Your task to perform on an android device: turn off smart reply in the gmail app Image 0: 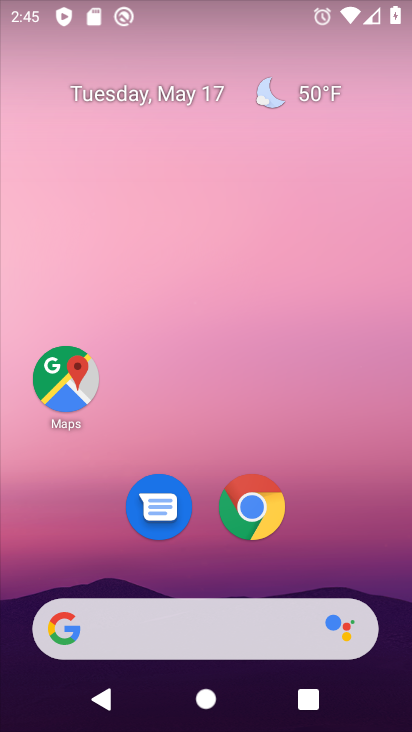
Step 0: drag from (334, 545) to (183, 8)
Your task to perform on an android device: turn off smart reply in the gmail app Image 1: 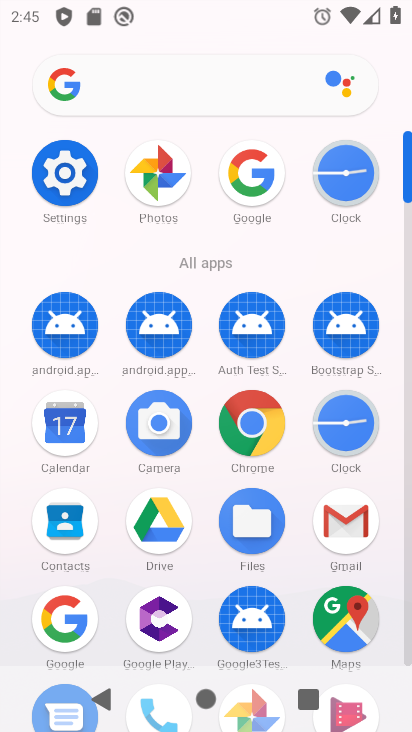
Step 1: click (355, 525)
Your task to perform on an android device: turn off smart reply in the gmail app Image 2: 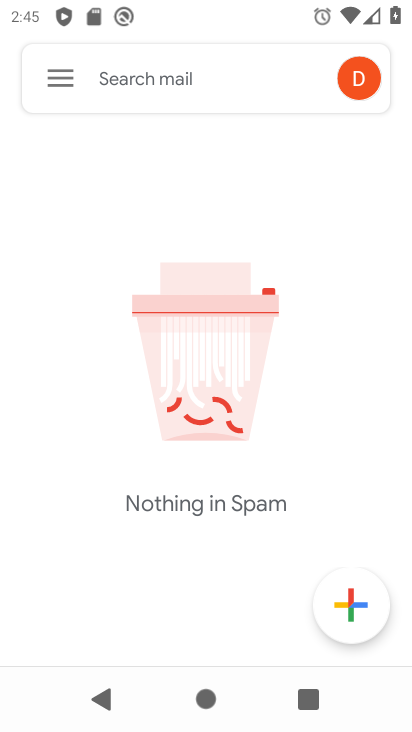
Step 2: click (66, 81)
Your task to perform on an android device: turn off smart reply in the gmail app Image 3: 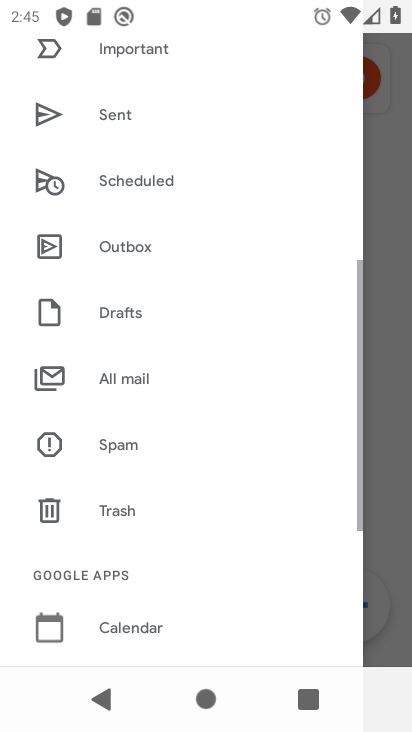
Step 3: drag from (196, 486) to (154, 85)
Your task to perform on an android device: turn off smart reply in the gmail app Image 4: 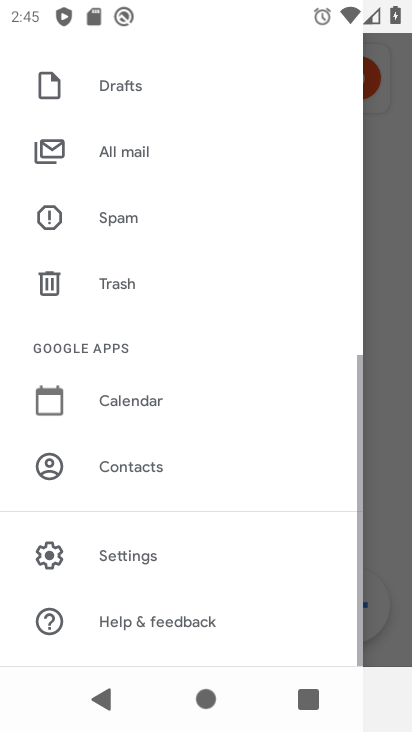
Step 4: click (158, 561)
Your task to perform on an android device: turn off smart reply in the gmail app Image 5: 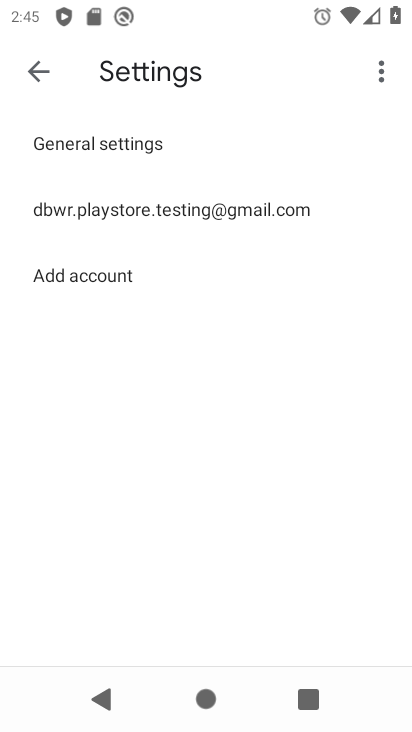
Step 5: click (177, 214)
Your task to perform on an android device: turn off smart reply in the gmail app Image 6: 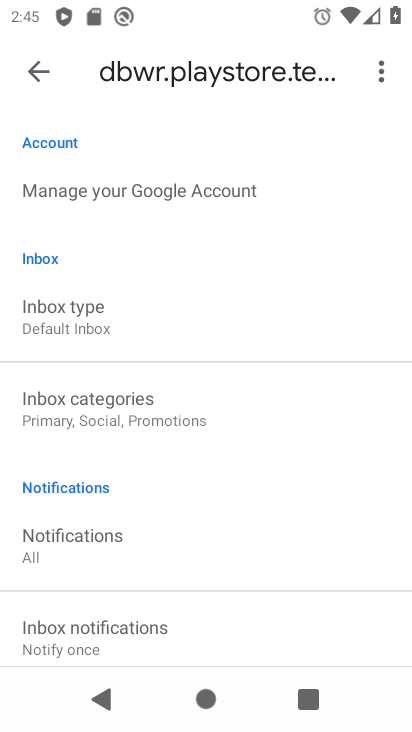
Step 6: drag from (199, 540) to (173, 136)
Your task to perform on an android device: turn off smart reply in the gmail app Image 7: 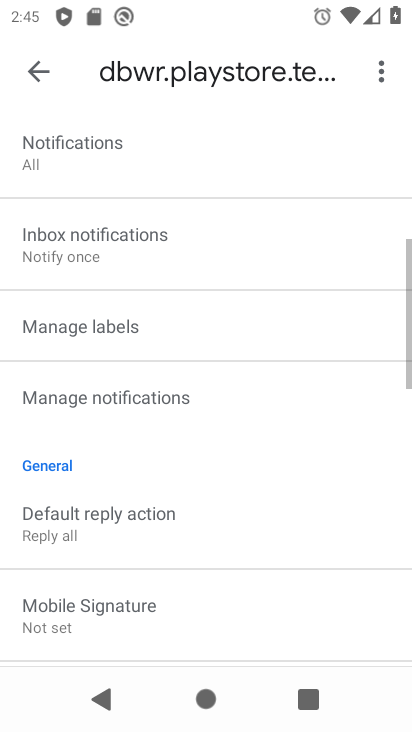
Step 7: drag from (188, 510) to (212, 153)
Your task to perform on an android device: turn off smart reply in the gmail app Image 8: 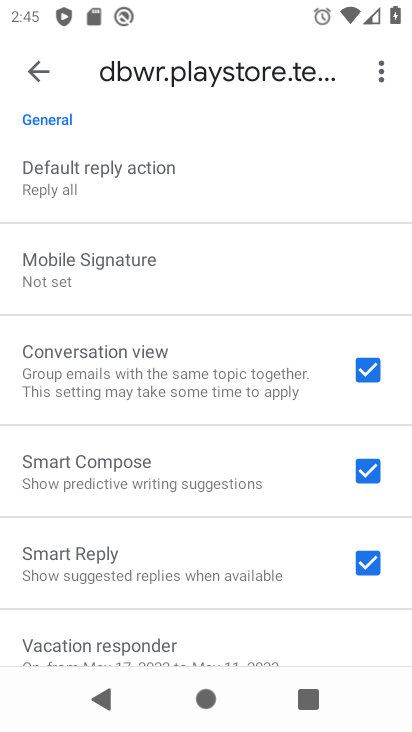
Step 8: click (374, 565)
Your task to perform on an android device: turn off smart reply in the gmail app Image 9: 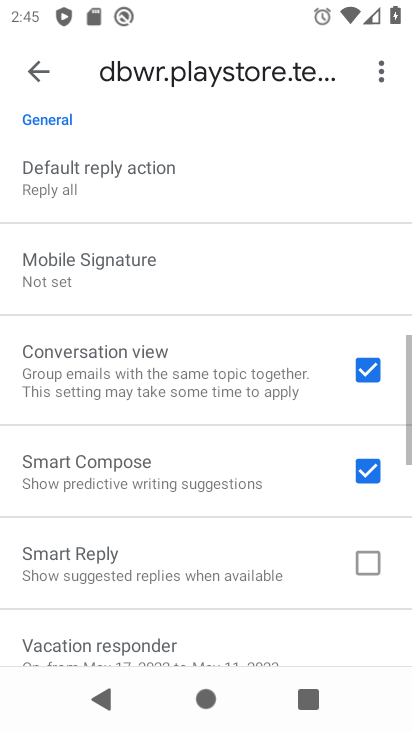
Step 9: task complete